Your task to perform on an android device: Turn off the flashlight Image 0: 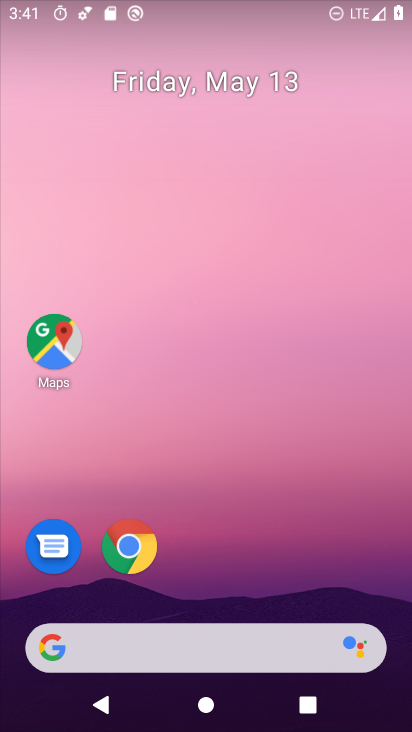
Step 0: drag from (173, 631) to (175, 185)
Your task to perform on an android device: Turn off the flashlight Image 1: 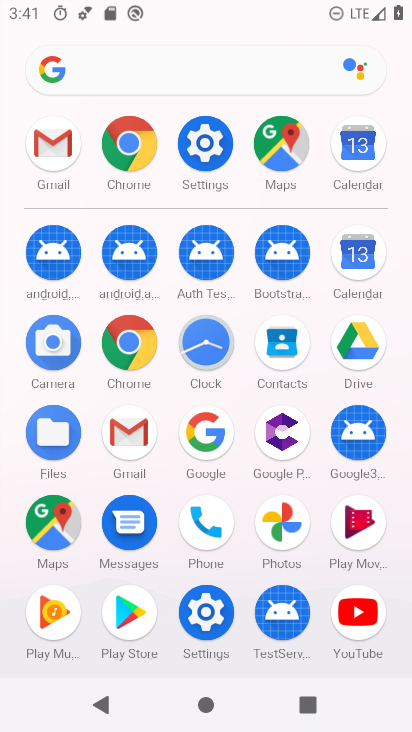
Step 1: task complete